Your task to perform on an android device: What's the weather today? Image 0: 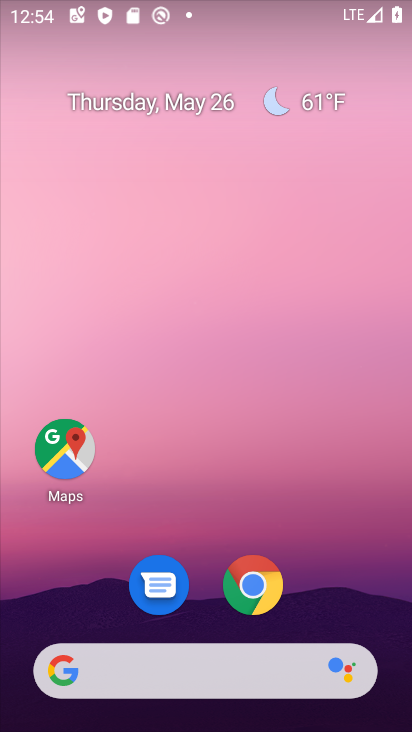
Step 0: click (247, 671)
Your task to perform on an android device: What's the weather today? Image 1: 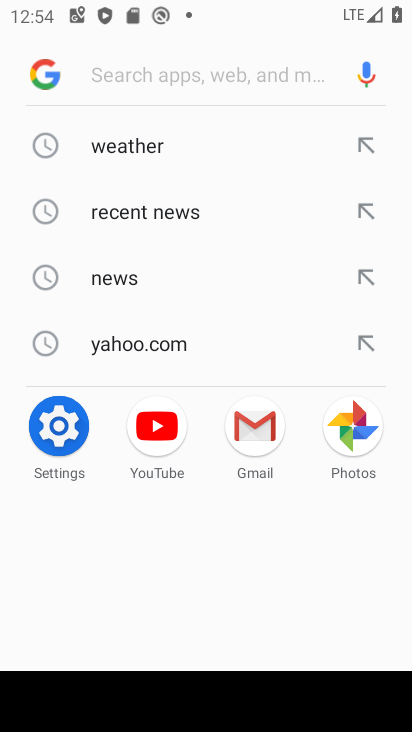
Step 1: click (117, 138)
Your task to perform on an android device: What's the weather today? Image 2: 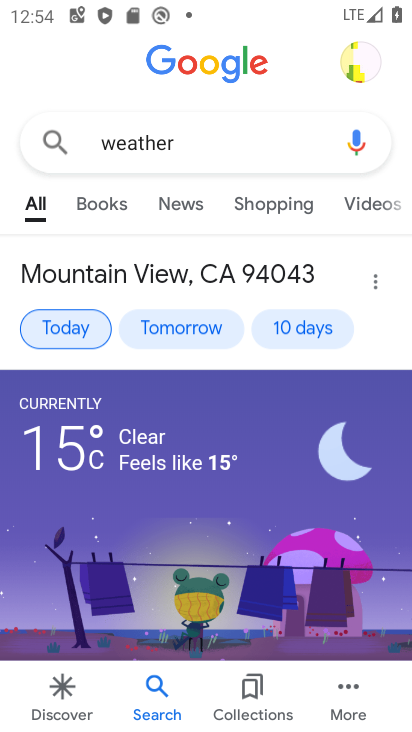
Step 2: click (80, 315)
Your task to perform on an android device: What's the weather today? Image 3: 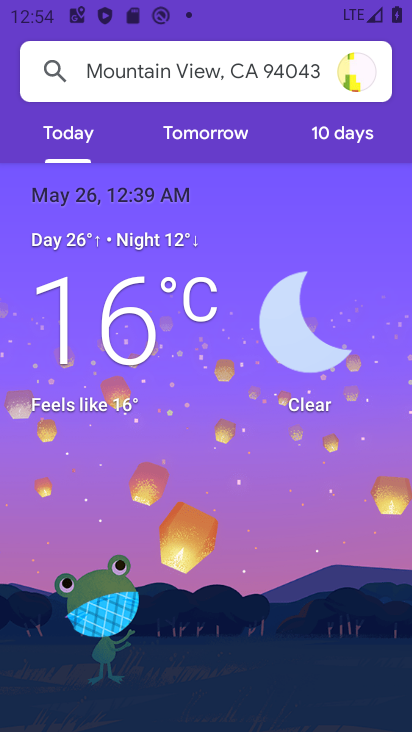
Step 3: task complete